Your task to perform on an android device: Open the map Image 0: 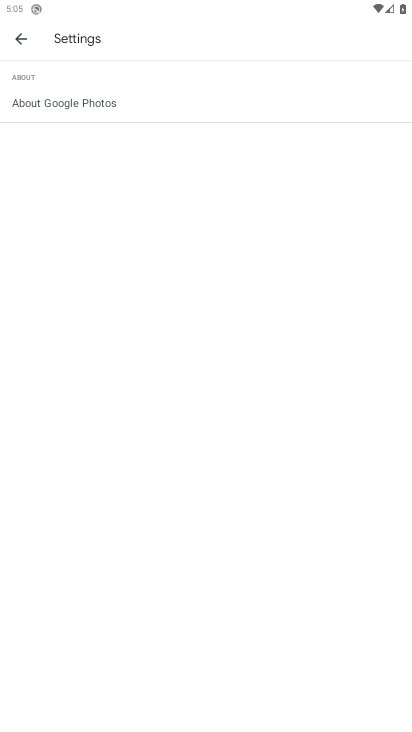
Step 0: press home button
Your task to perform on an android device: Open the map Image 1: 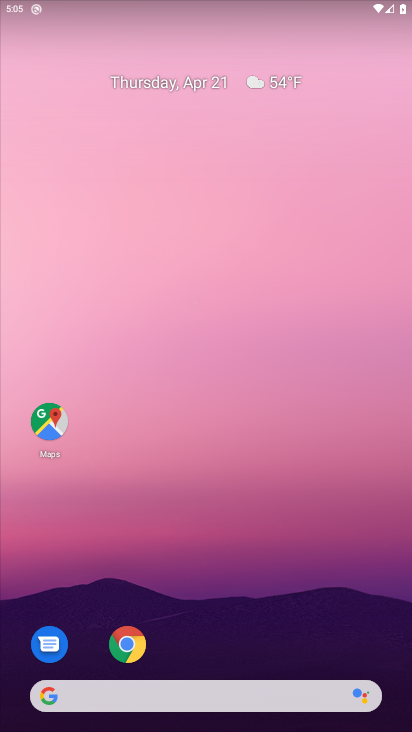
Step 1: drag from (188, 667) to (188, 357)
Your task to perform on an android device: Open the map Image 2: 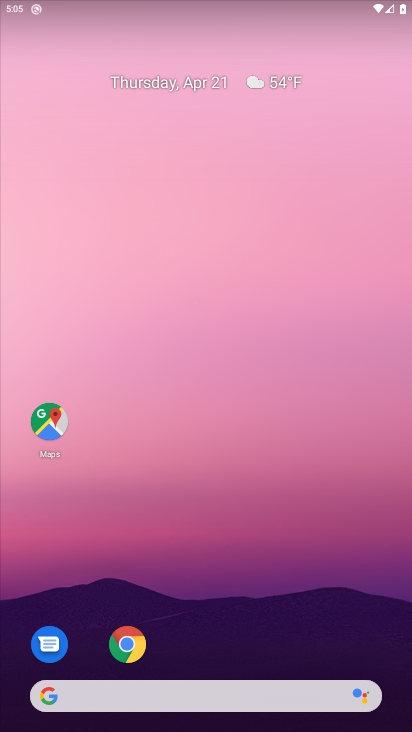
Step 2: drag from (209, 640) to (219, 296)
Your task to perform on an android device: Open the map Image 3: 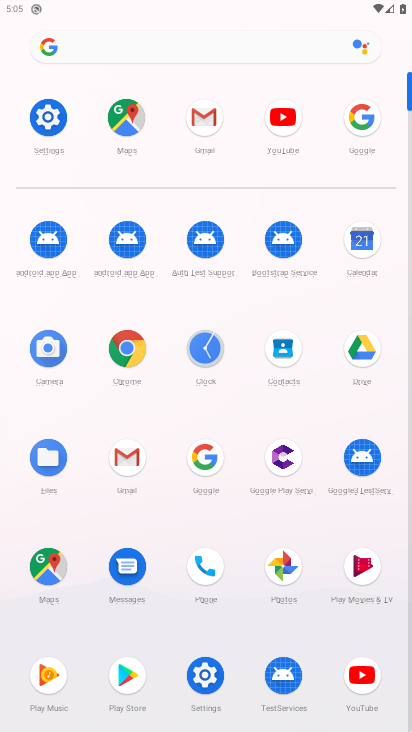
Step 3: click (127, 115)
Your task to perform on an android device: Open the map Image 4: 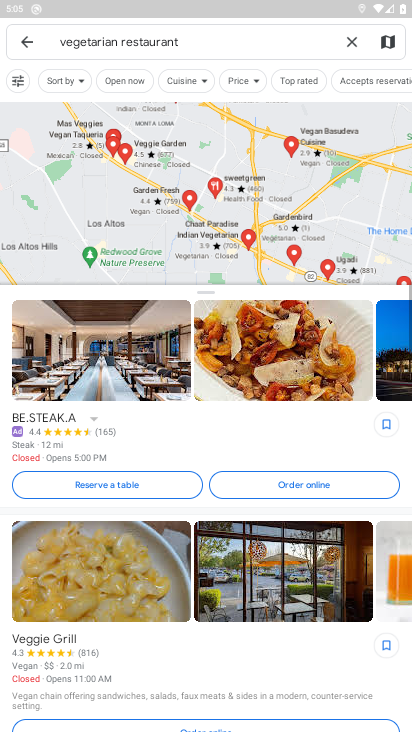
Step 4: click (350, 36)
Your task to perform on an android device: Open the map Image 5: 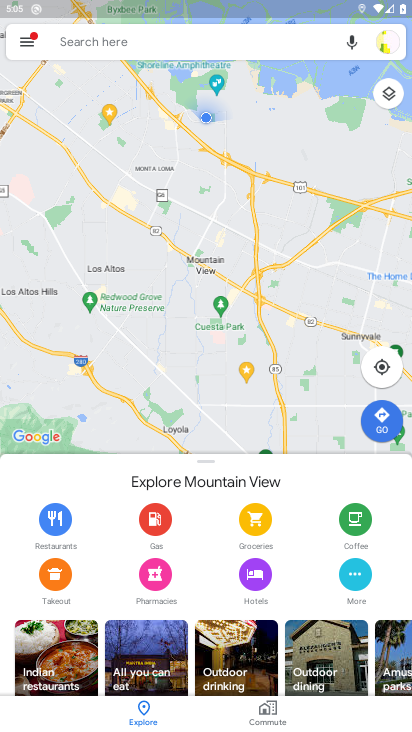
Step 5: task complete